Your task to perform on an android device: Go to wifi settings Image 0: 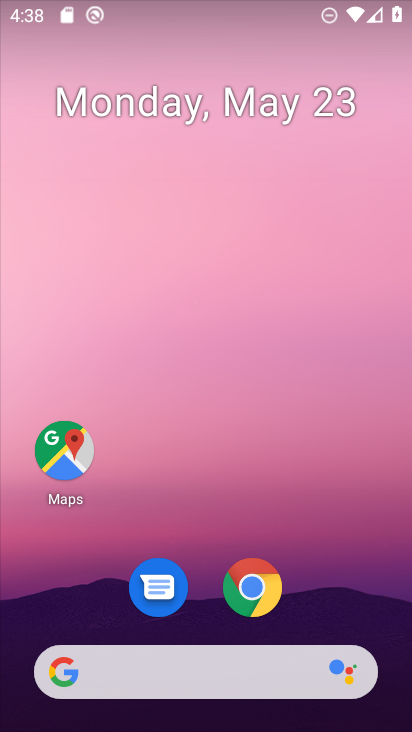
Step 0: drag from (201, 618) to (184, 119)
Your task to perform on an android device: Go to wifi settings Image 1: 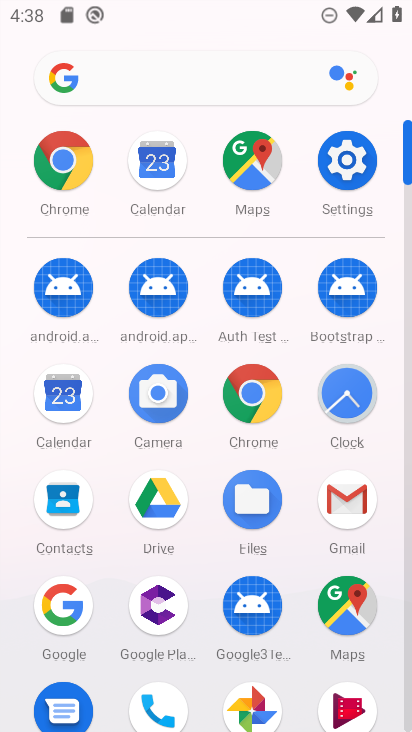
Step 1: click (352, 169)
Your task to perform on an android device: Go to wifi settings Image 2: 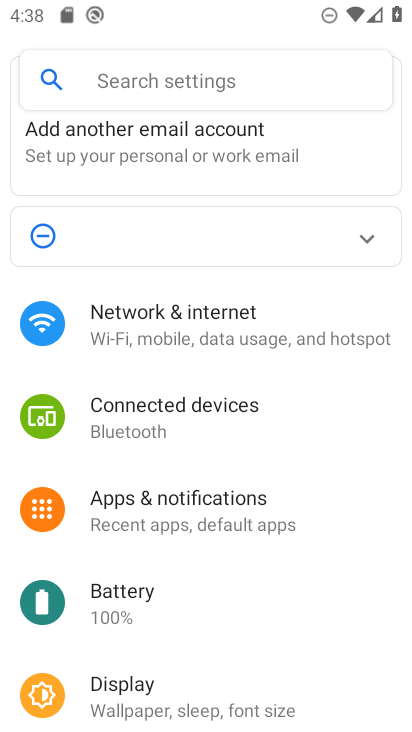
Step 2: click (186, 325)
Your task to perform on an android device: Go to wifi settings Image 3: 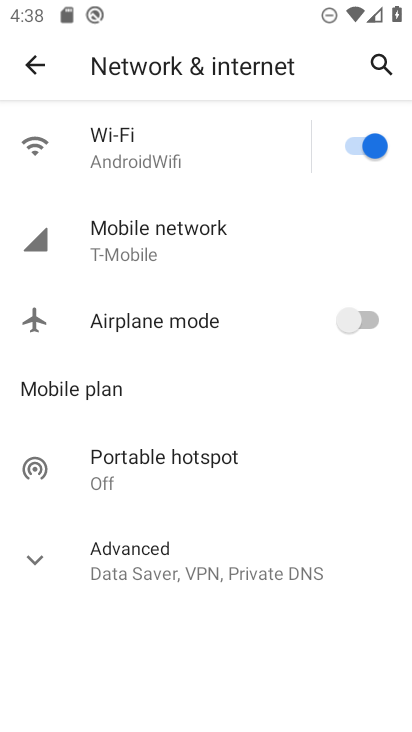
Step 3: click (194, 144)
Your task to perform on an android device: Go to wifi settings Image 4: 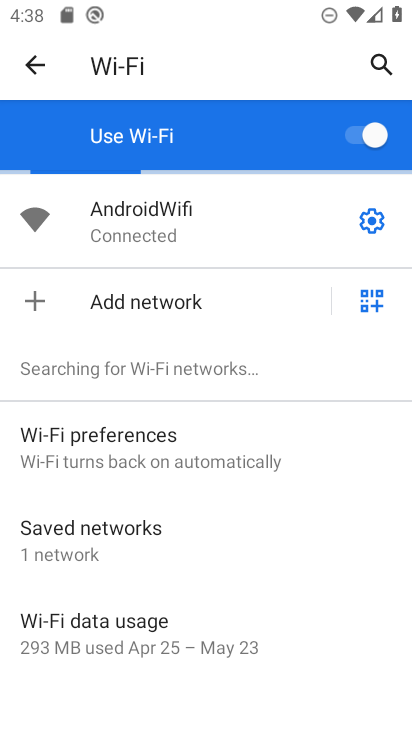
Step 4: task complete